Your task to perform on an android device: change your default location settings in chrome Image 0: 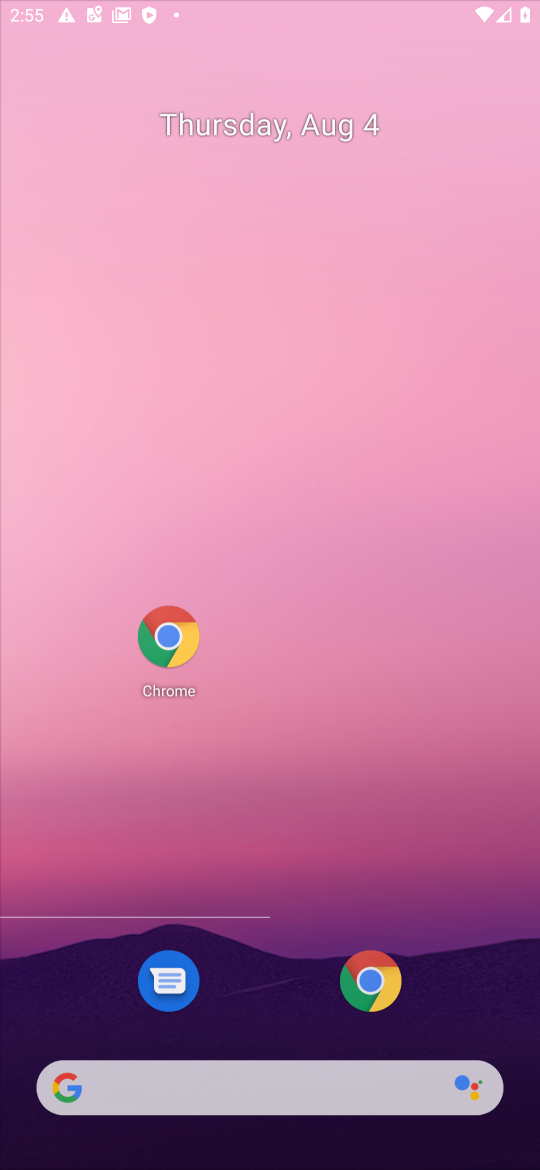
Step 0: click (28, 63)
Your task to perform on an android device: change your default location settings in chrome Image 1: 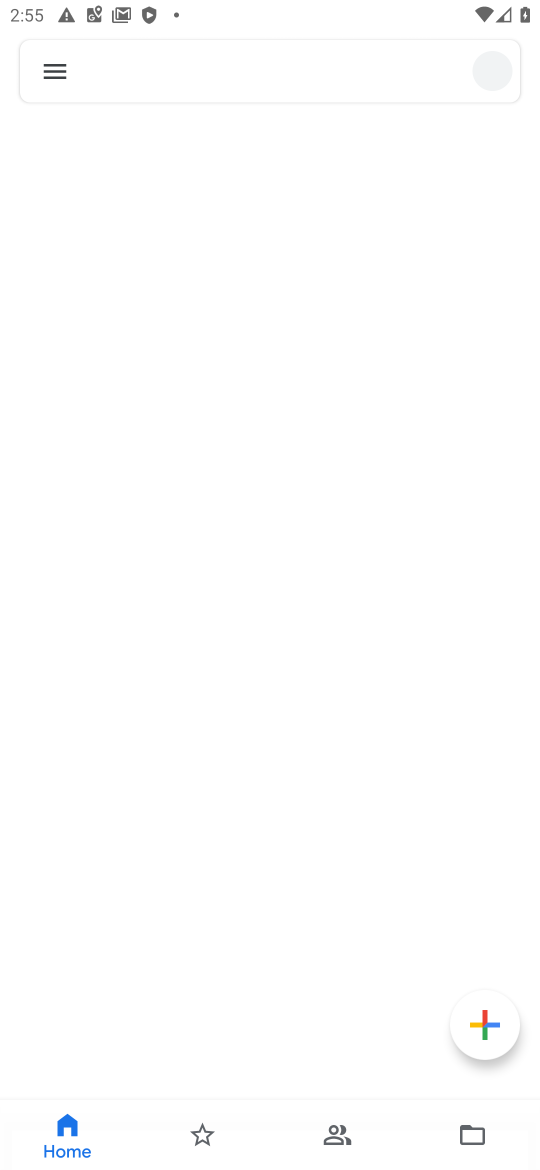
Step 1: press back button
Your task to perform on an android device: change your default location settings in chrome Image 2: 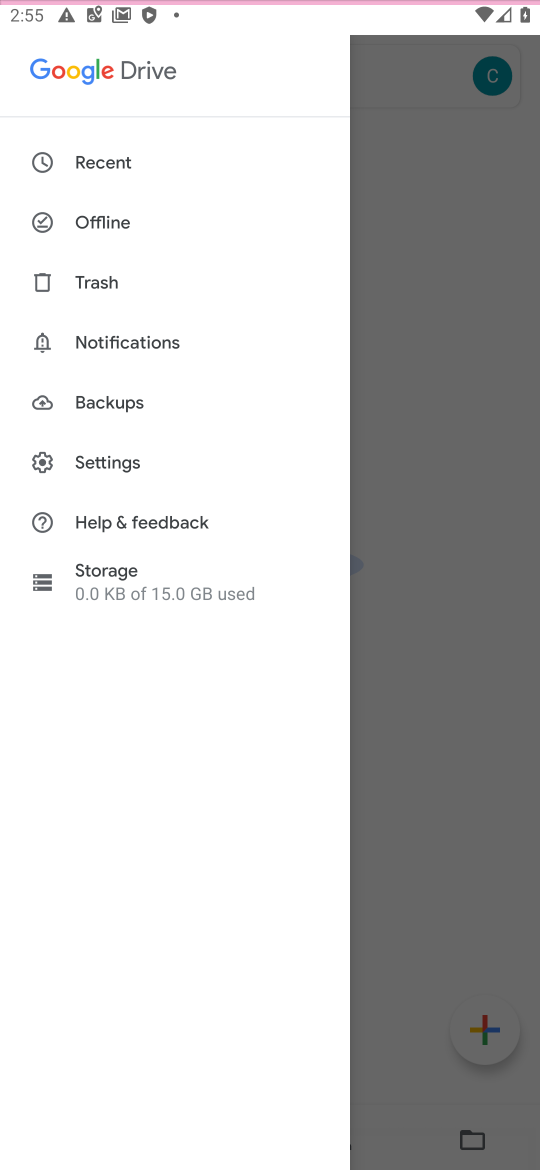
Step 2: click (449, 34)
Your task to perform on an android device: change your default location settings in chrome Image 3: 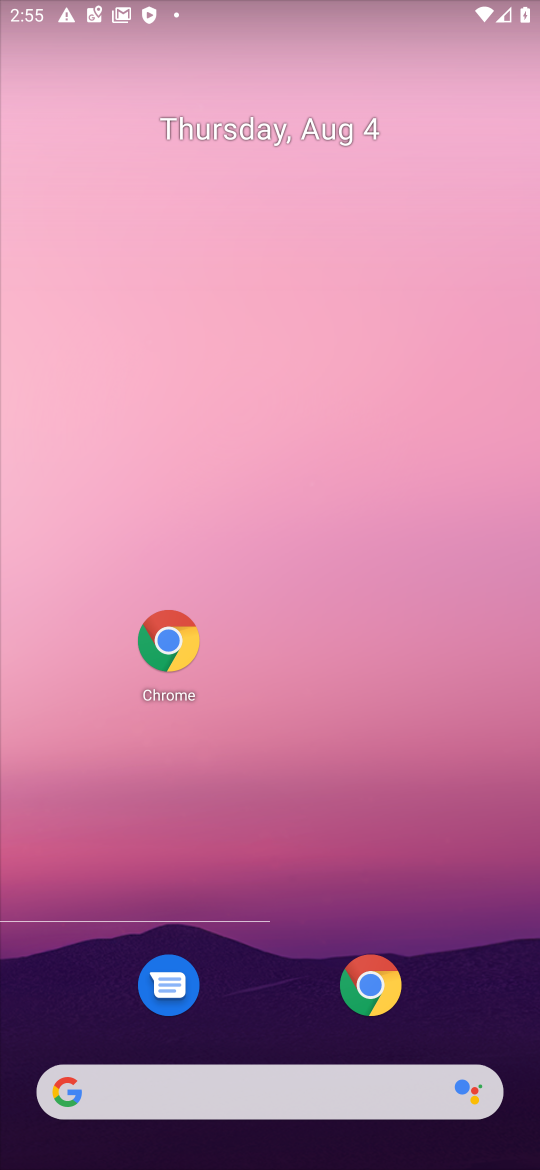
Step 3: press back button
Your task to perform on an android device: change your default location settings in chrome Image 4: 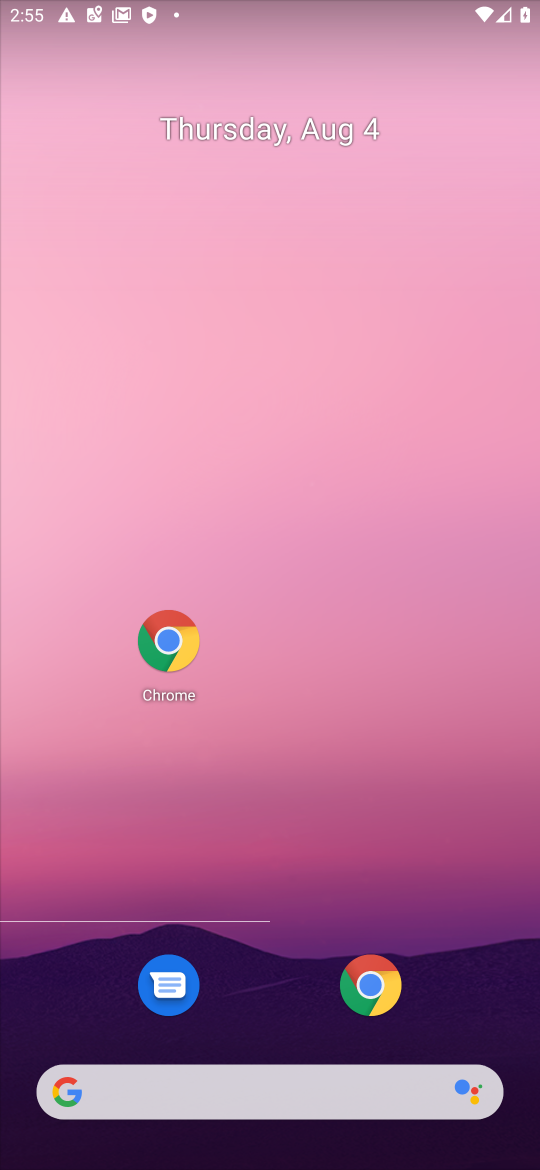
Step 4: press home button
Your task to perform on an android device: change your default location settings in chrome Image 5: 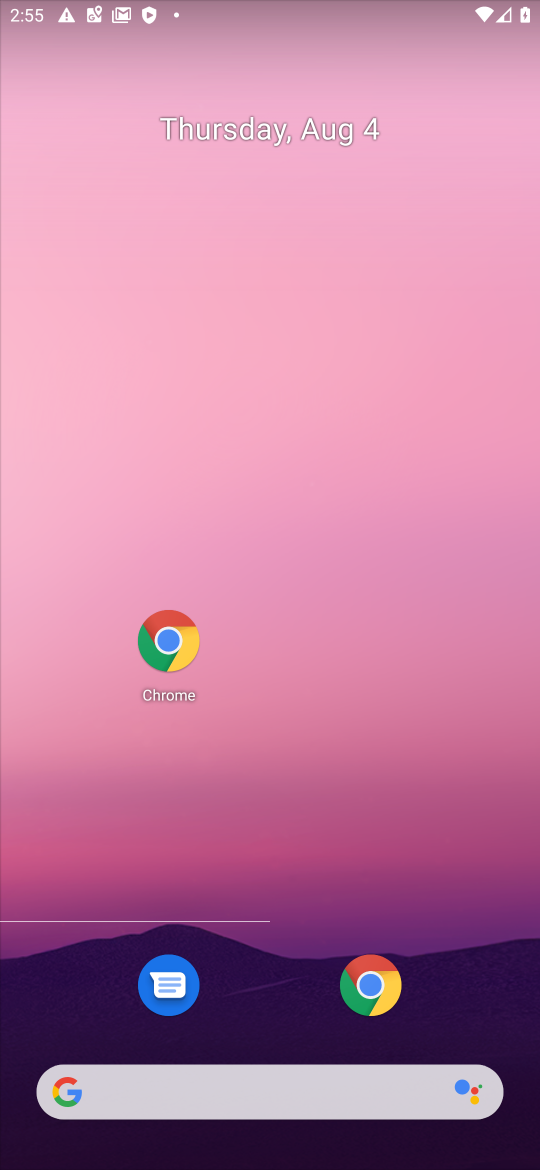
Step 5: drag from (285, 1010) to (234, 139)
Your task to perform on an android device: change your default location settings in chrome Image 6: 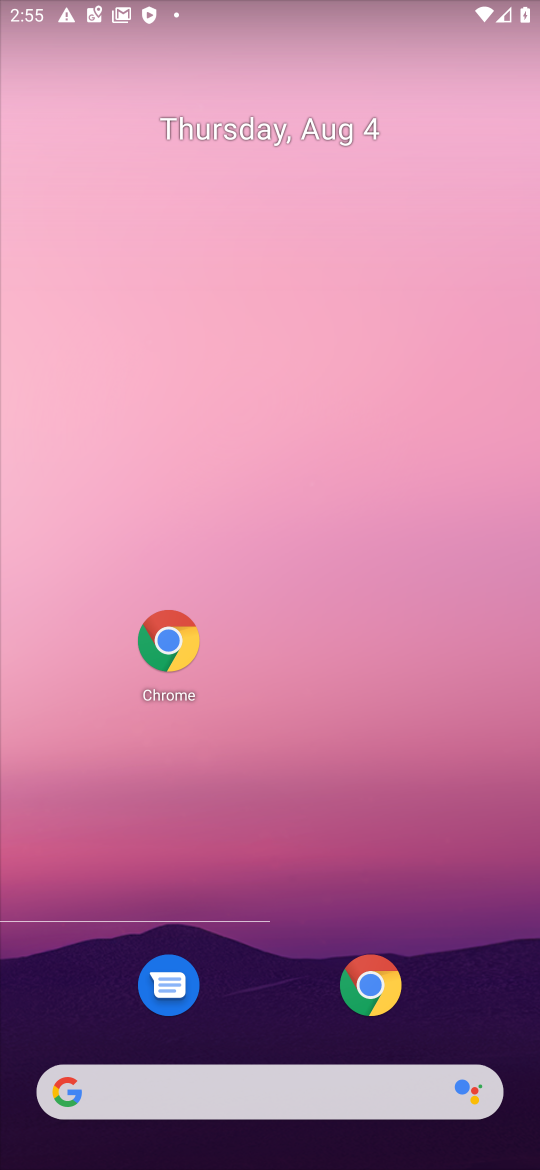
Step 6: drag from (231, 751) to (151, 116)
Your task to perform on an android device: change your default location settings in chrome Image 7: 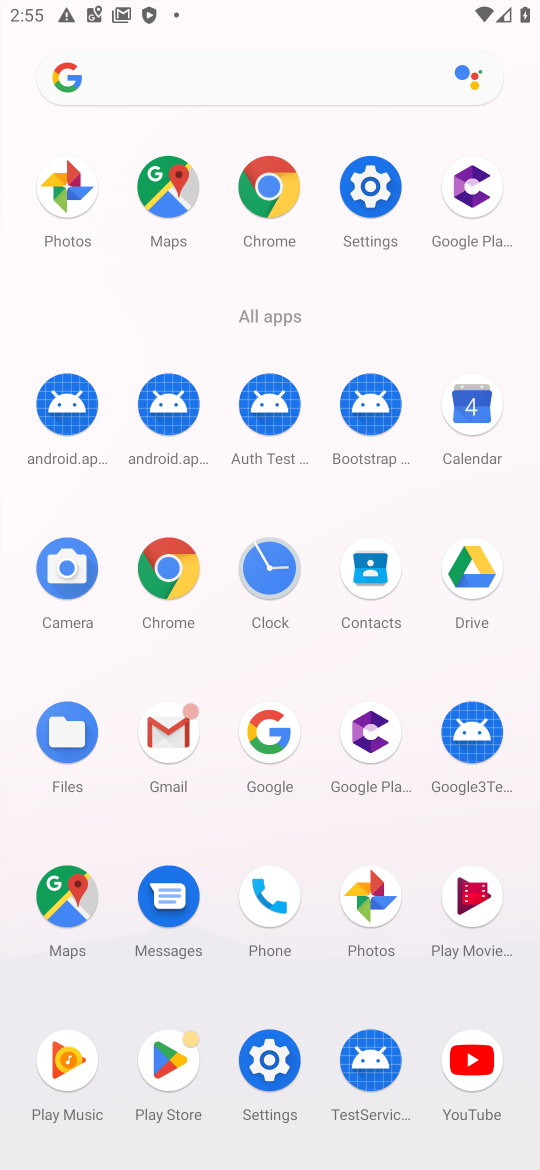
Step 7: drag from (211, 771) to (202, 272)
Your task to perform on an android device: change your default location settings in chrome Image 8: 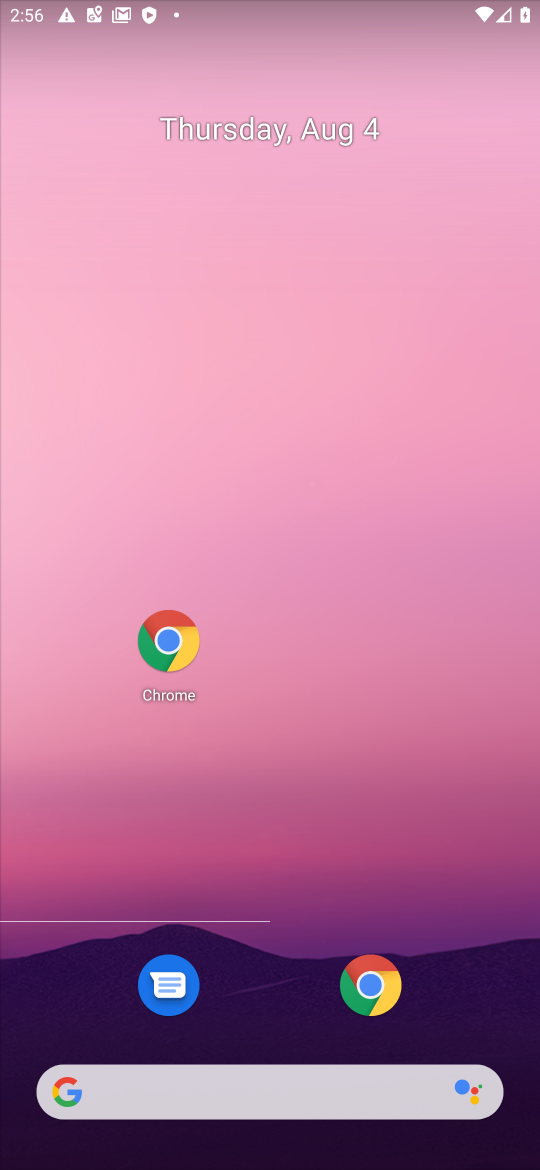
Step 8: drag from (296, 387) to (286, 278)
Your task to perform on an android device: change your default location settings in chrome Image 9: 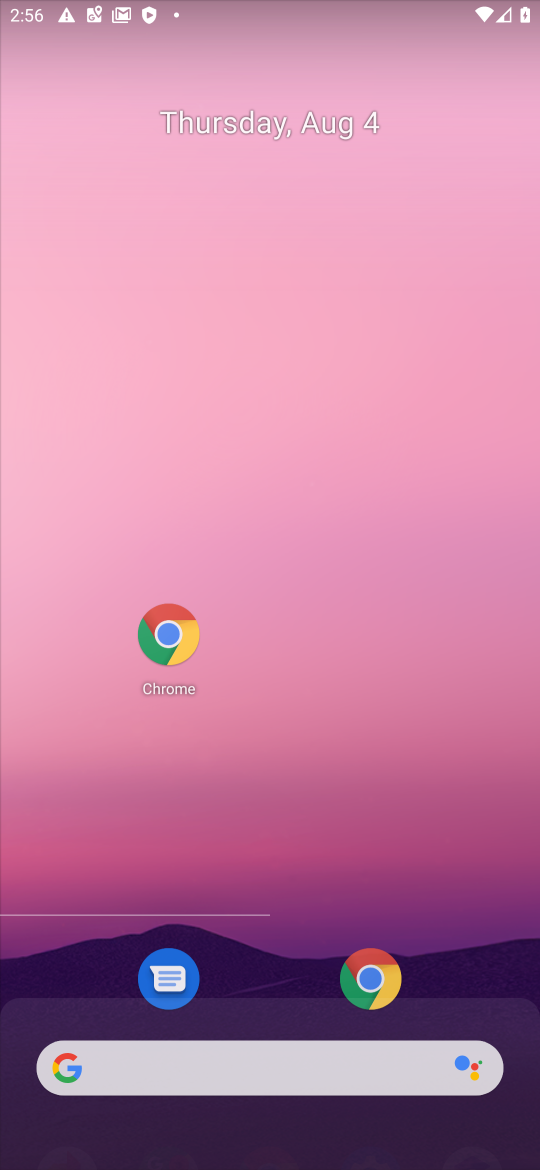
Step 9: click (211, 362)
Your task to perform on an android device: change your default location settings in chrome Image 10: 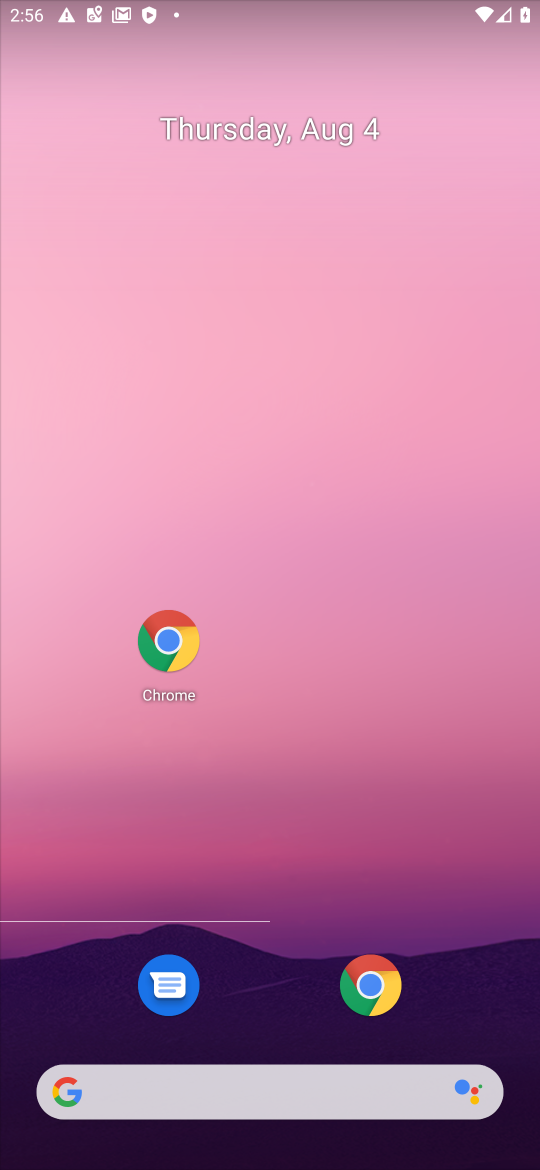
Step 10: drag from (104, 806) to (169, 150)
Your task to perform on an android device: change your default location settings in chrome Image 11: 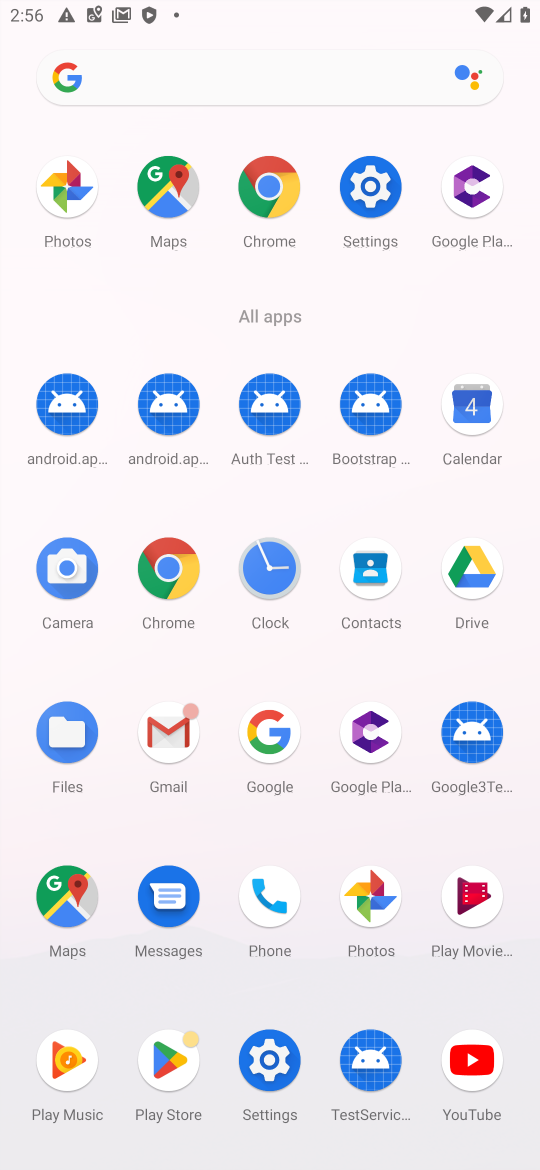
Step 11: click (267, 171)
Your task to perform on an android device: change your default location settings in chrome Image 12: 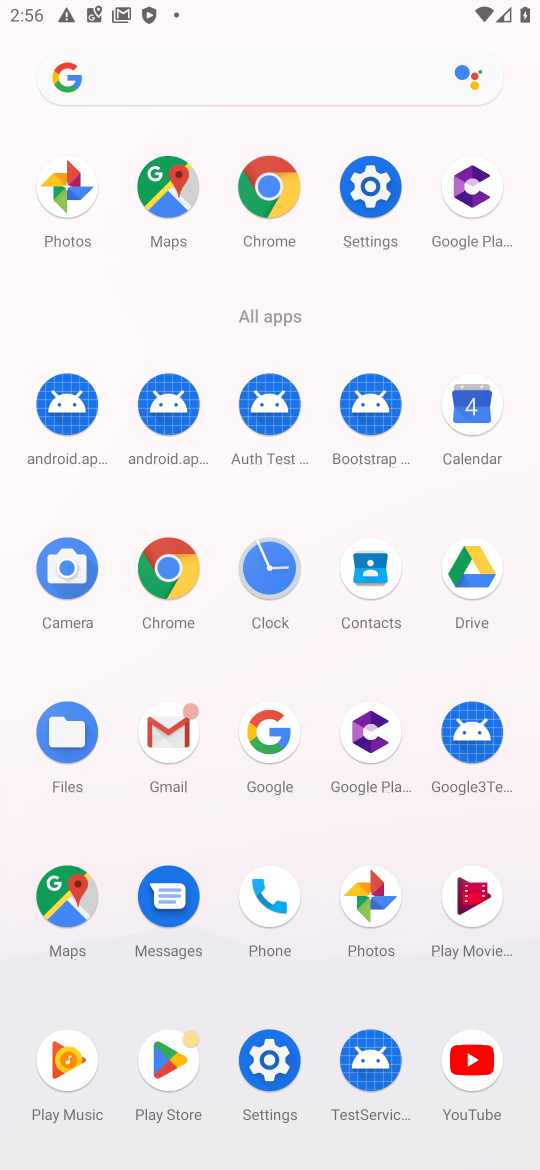
Step 12: click (267, 171)
Your task to perform on an android device: change your default location settings in chrome Image 13: 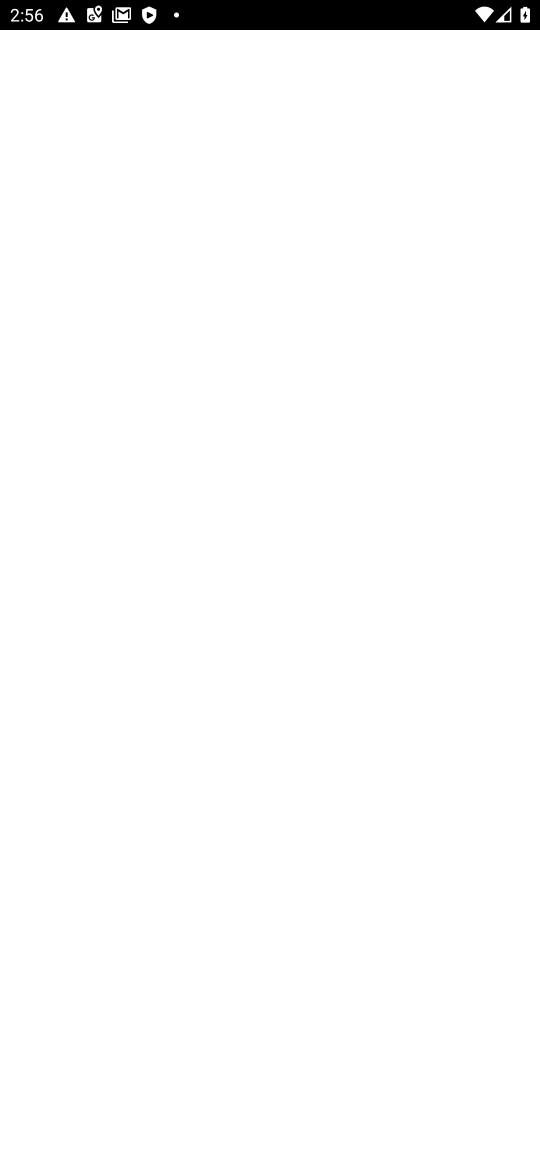
Step 13: click (267, 176)
Your task to perform on an android device: change your default location settings in chrome Image 14: 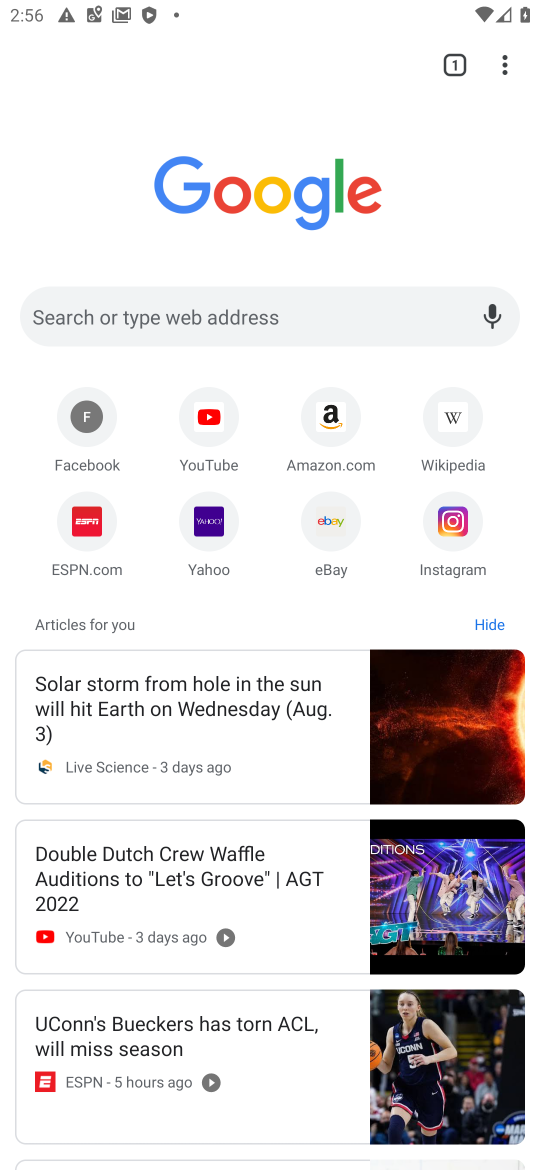
Step 14: drag from (505, 58) to (263, 565)
Your task to perform on an android device: change your default location settings in chrome Image 15: 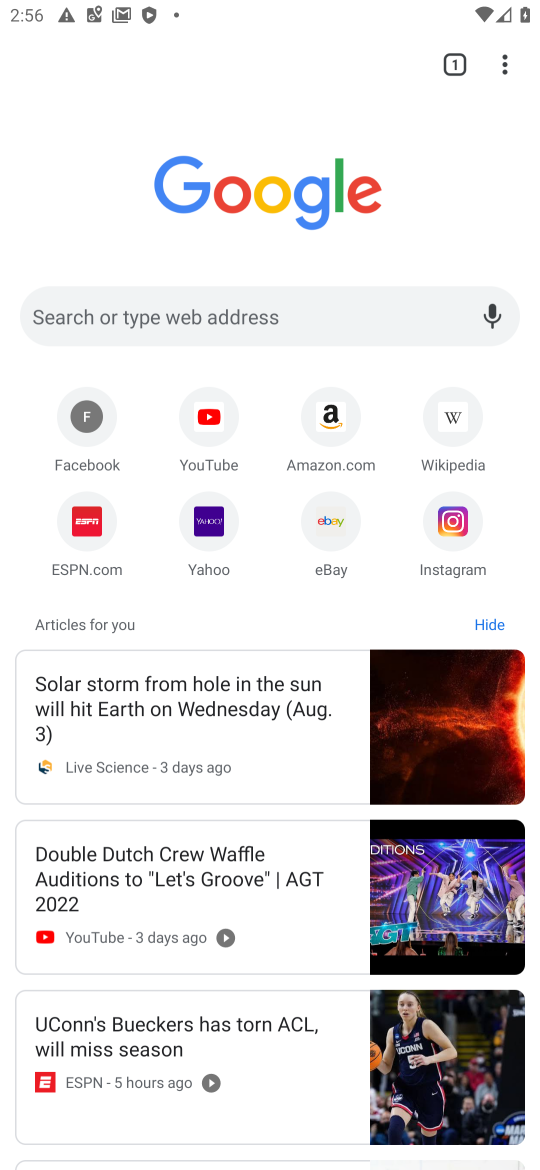
Step 15: click (257, 558)
Your task to perform on an android device: change your default location settings in chrome Image 16: 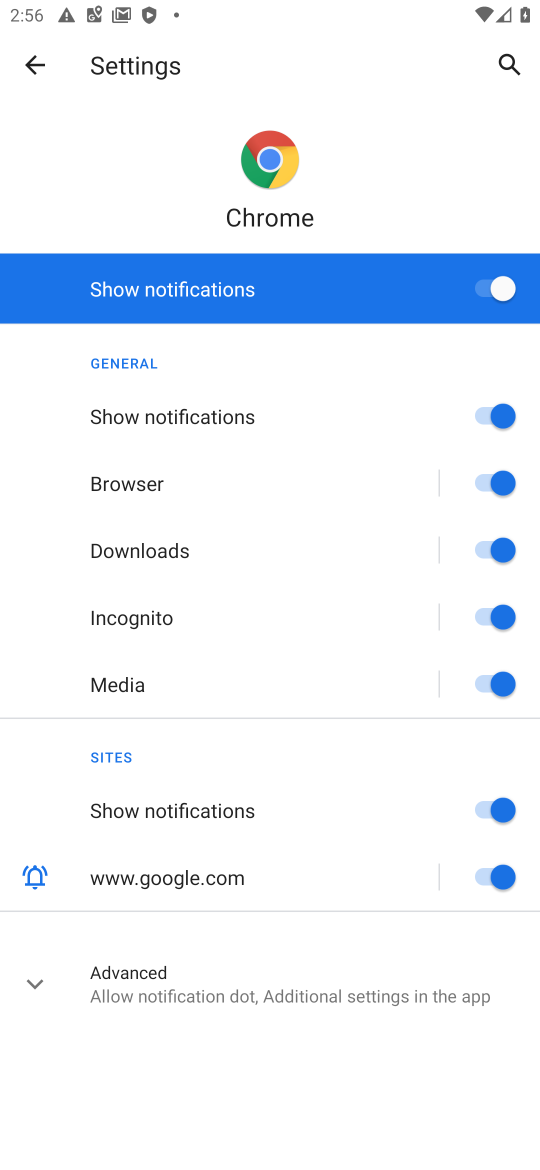
Step 16: click (34, 61)
Your task to perform on an android device: change your default location settings in chrome Image 17: 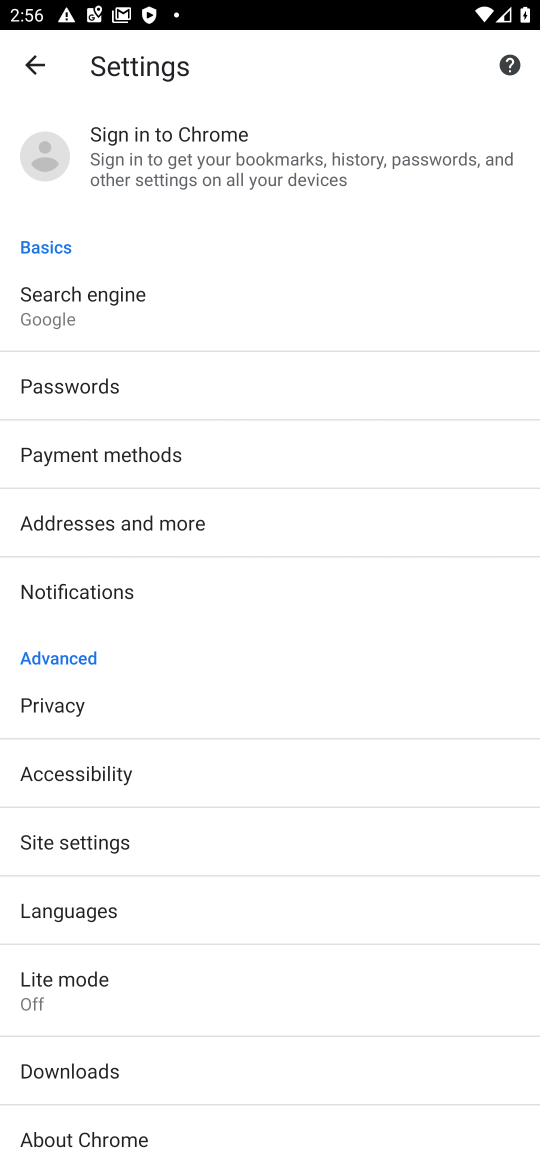
Step 17: click (68, 840)
Your task to perform on an android device: change your default location settings in chrome Image 18: 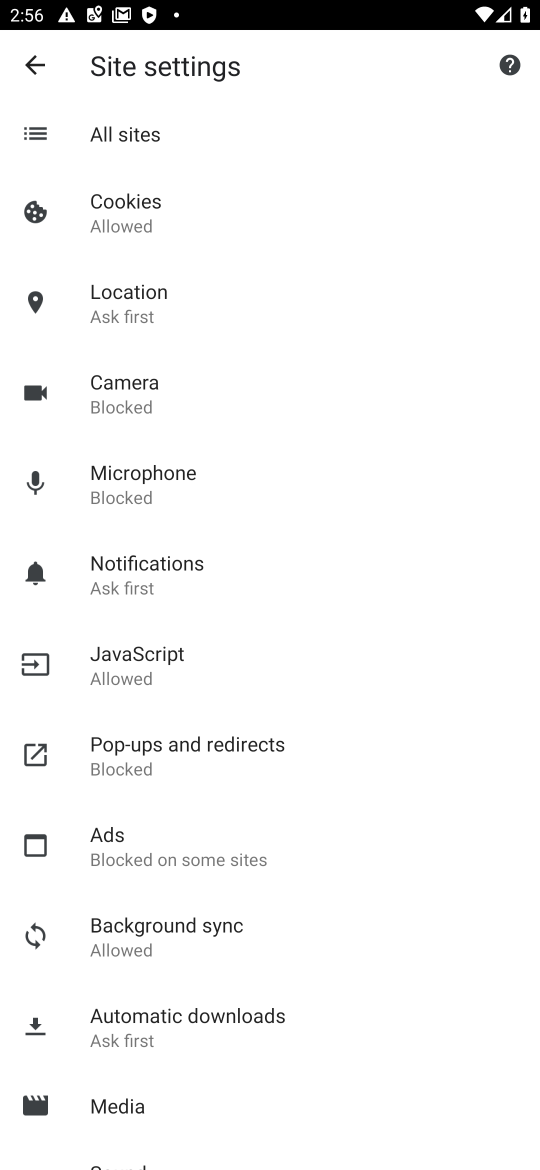
Step 18: click (122, 312)
Your task to perform on an android device: change your default location settings in chrome Image 19: 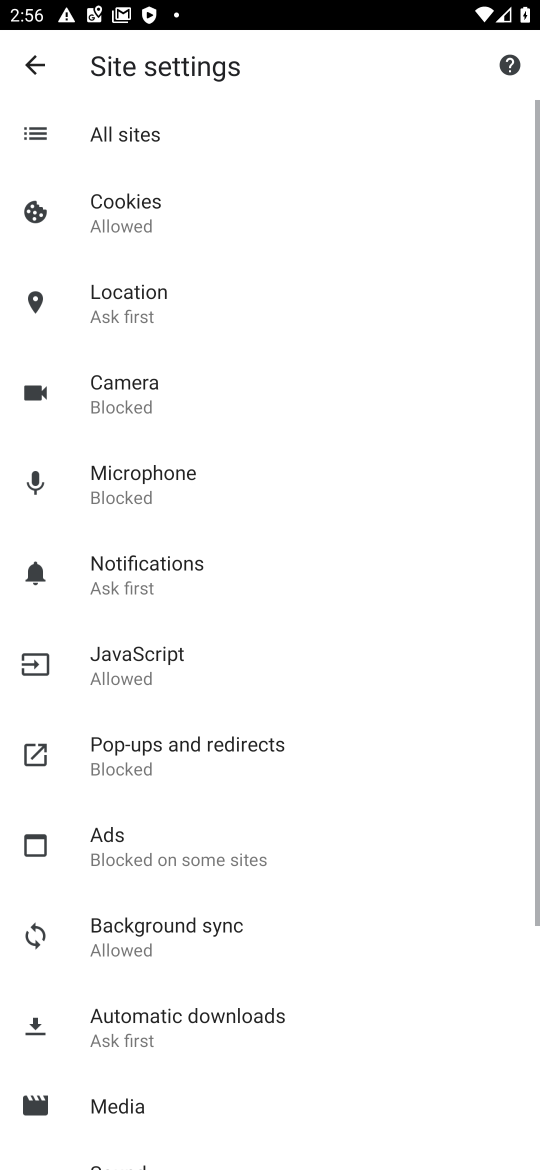
Step 19: click (135, 305)
Your task to perform on an android device: change your default location settings in chrome Image 20: 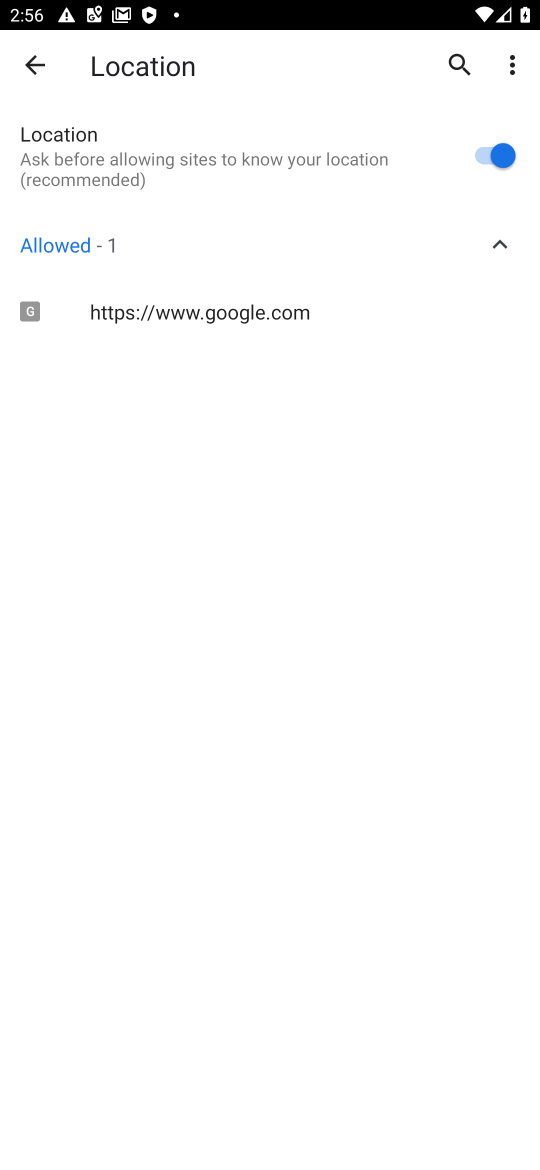
Step 20: click (492, 157)
Your task to perform on an android device: change your default location settings in chrome Image 21: 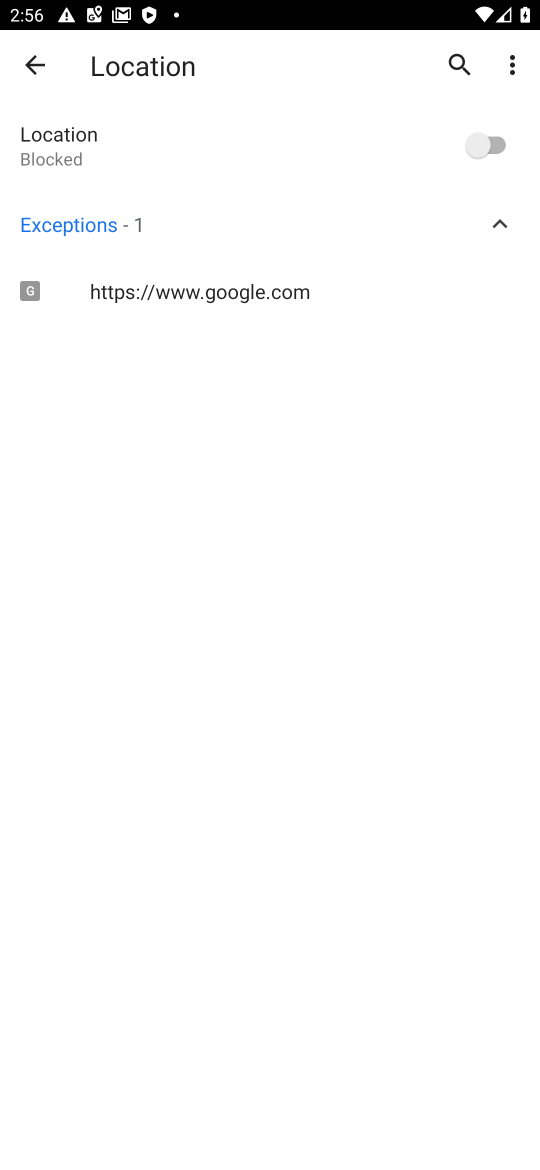
Step 21: task complete